Your task to perform on an android device: toggle priority inbox in the gmail app Image 0: 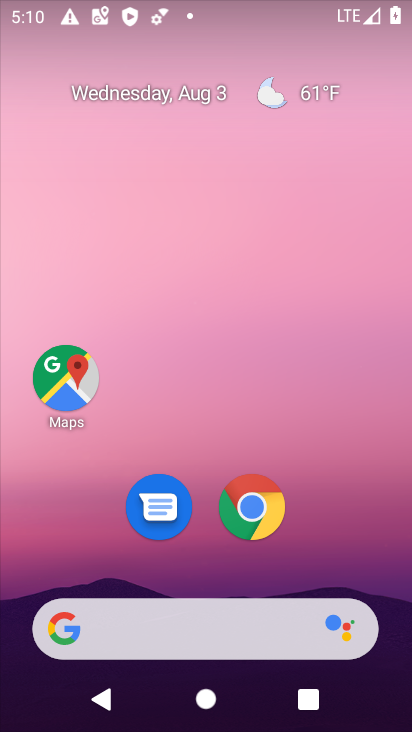
Step 0: drag from (340, 534) to (348, 118)
Your task to perform on an android device: toggle priority inbox in the gmail app Image 1: 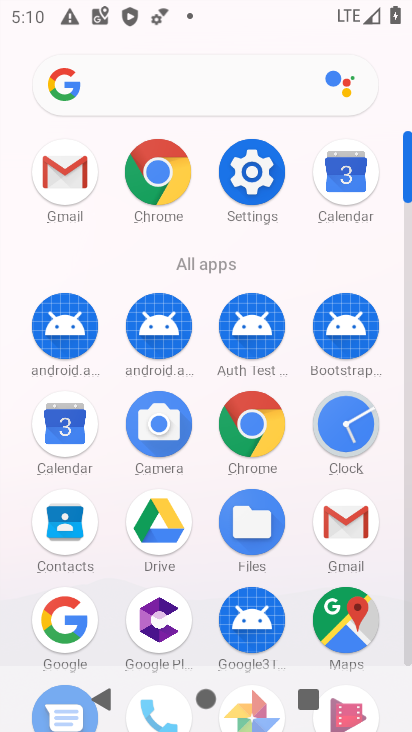
Step 1: click (352, 523)
Your task to perform on an android device: toggle priority inbox in the gmail app Image 2: 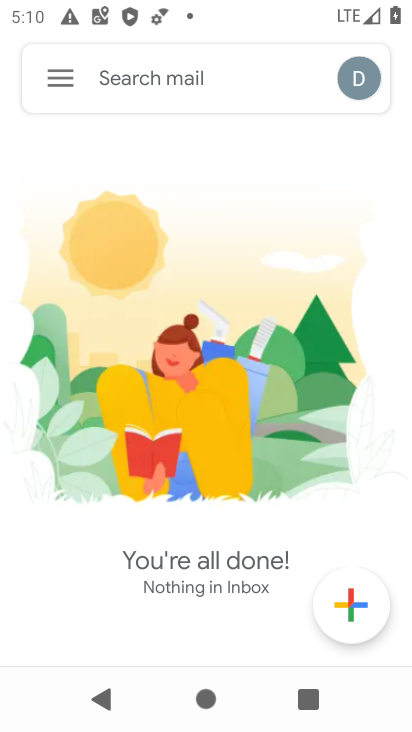
Step 2: click (57, 74)
Your task to perform on an android device: toggle priority inbox in the gmail app Image 3: 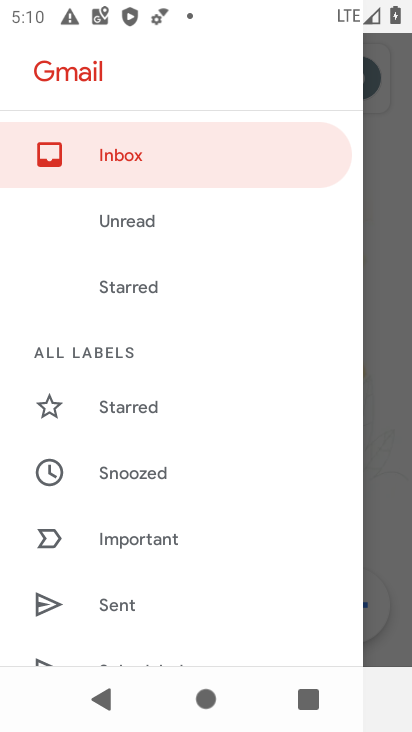
Step 3: drag from (231, 605) to (325, 30)
Your task to perform on an android device: toggle priority inbox in the gmail app Image 4: 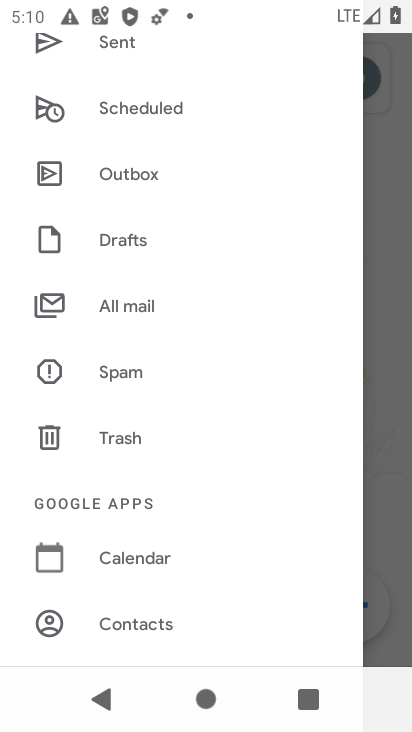
Step 4: drag from (194, 528) to (228, 175)
Your task to perform on an android device: toggle priority inbox in the gmail app Image 5: 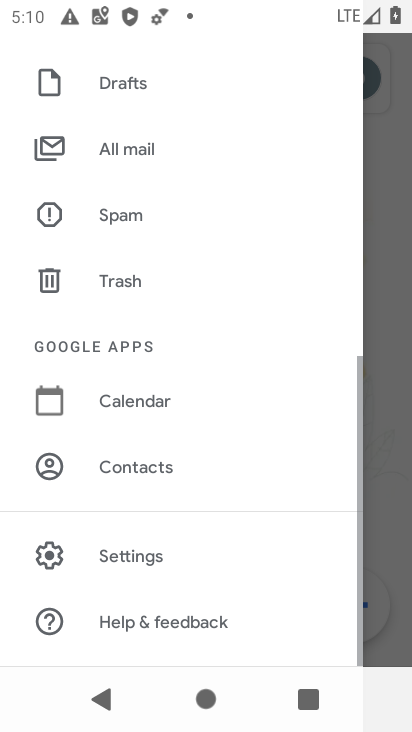
Step 5: click (144, 570)
Your task to perform on an android device: toggle priority inbox in the gmail app Image 6: 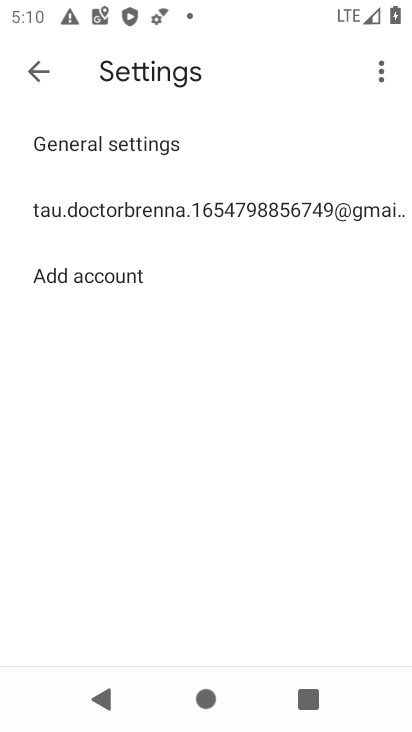
Step 6: click (213, 212)
Your task to perform on an android device: toggle priority inbox in the gmail app Image 7: 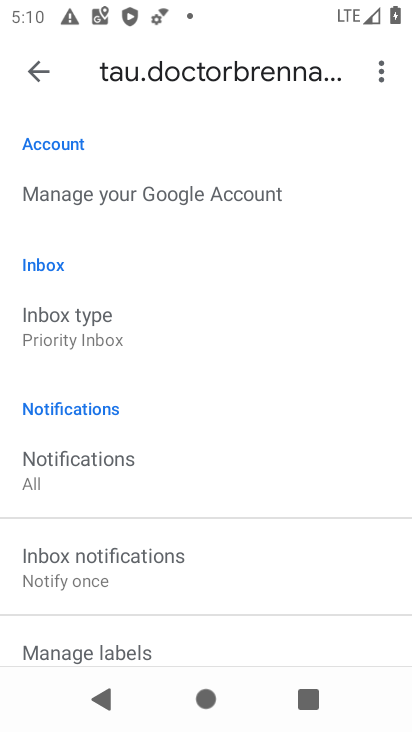
Step 7: click (95, 323)
Your task to perform on an android device: toggle priority inbox in the gmail app Image 8: 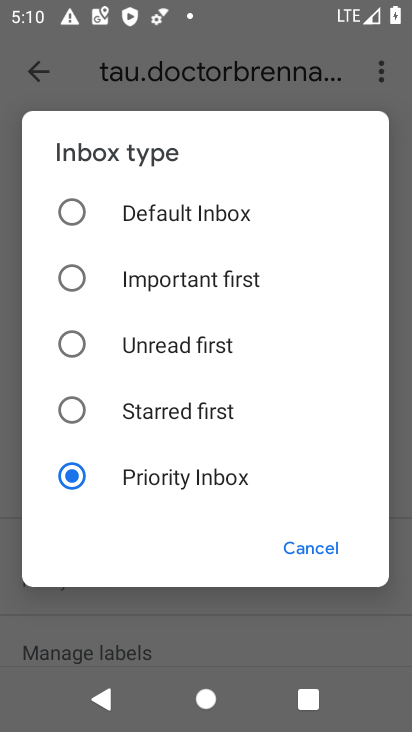
Step 8: click (178, 216)
Your task to perform on an android device: toggle priority inbox in the gmail app Image 9: 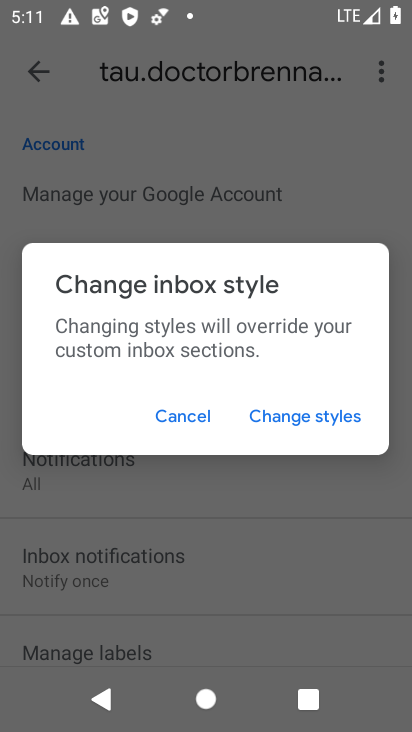
Step 9: click (332, 420)
Your task to perform on an android device: toggle priority inbox in the gmail app Image 10: 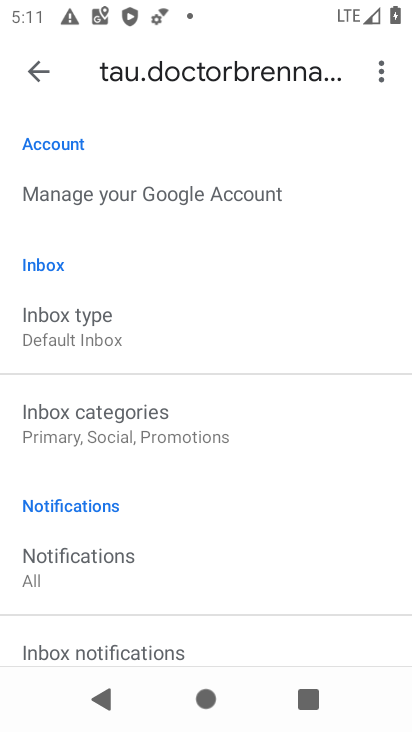
Step 10: task complete